Your task to perform on an android device: Do I have any events today? Image 0: 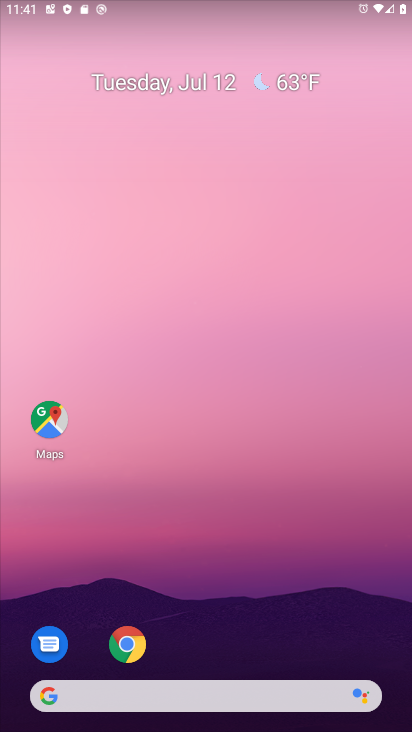
Step 0: drag from (249, 695) to (297, 96)
Your task to perform on an android device: Do I have any events today? Image 1: 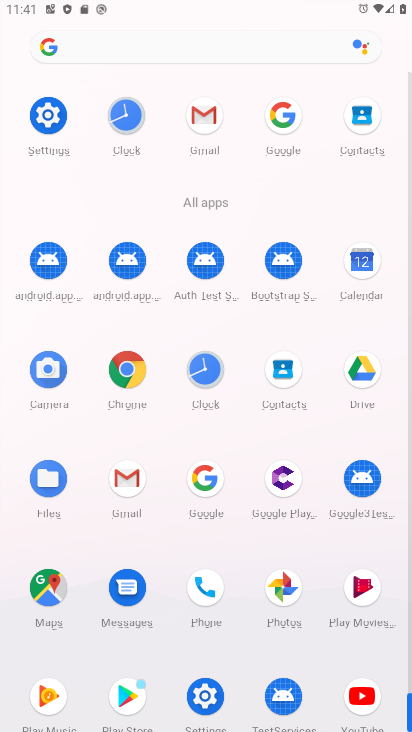
Step 1: click (357, 262)
Your task to perform on an android device: Do I have any events today? Image 2: 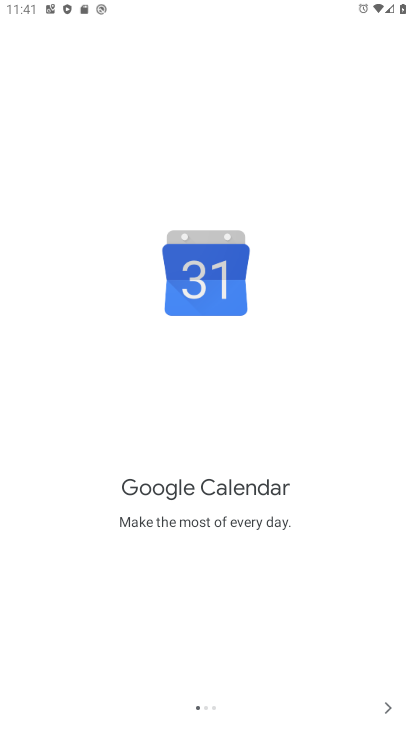
Step 2: click (390, 702)
Your task to perform on an android device: Do I have any events today? Image 3: 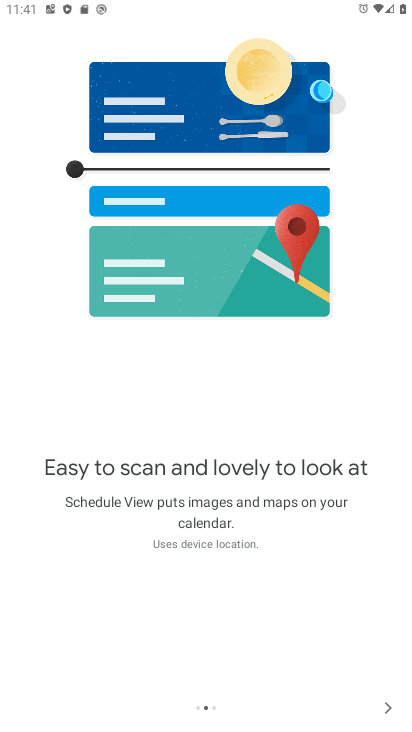
Step 3: click (386, 704)
Your task to perform on an android device: Do I have any events today? Image 4: 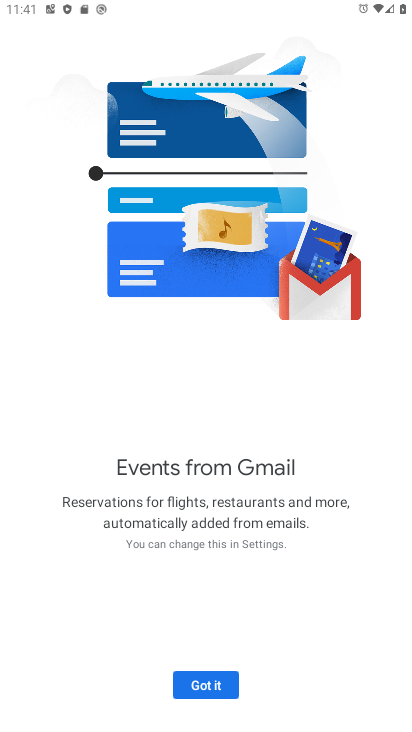
Step 4: click (215, 685)
Your task to perform on an android device: Do I have any events today? Image 5: 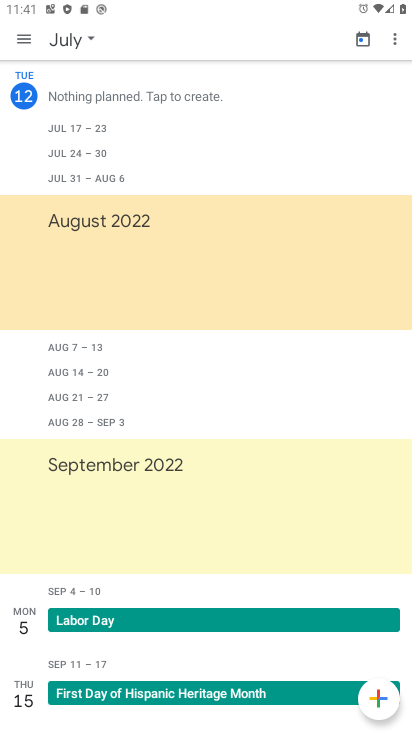
Step 5: click (96, 35)
Your task to perform on an android device: Do I have any events today? Image 6: 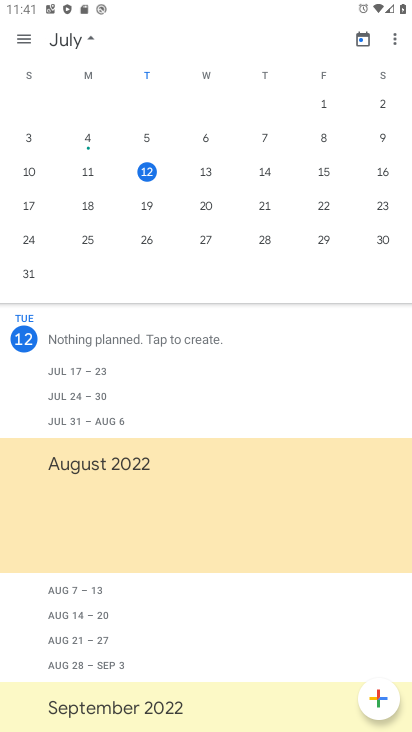
Step 6: click (152, 168)
Your task to perform on an android device: Do I have any events today? Image 7: 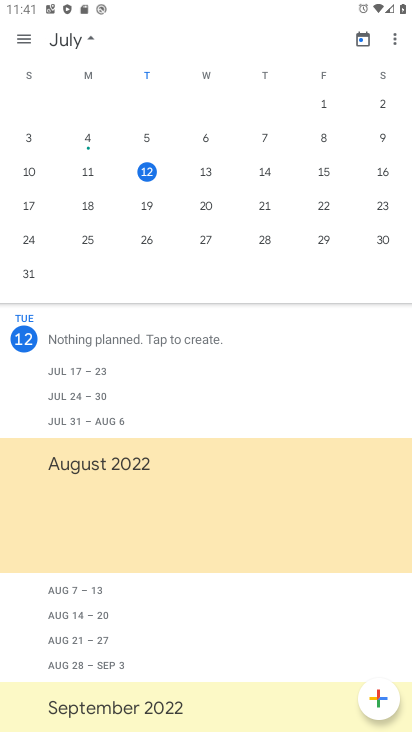
Step 7: task complete